Your task to perform on an android device: delete a single message in the gmail app Image 0: 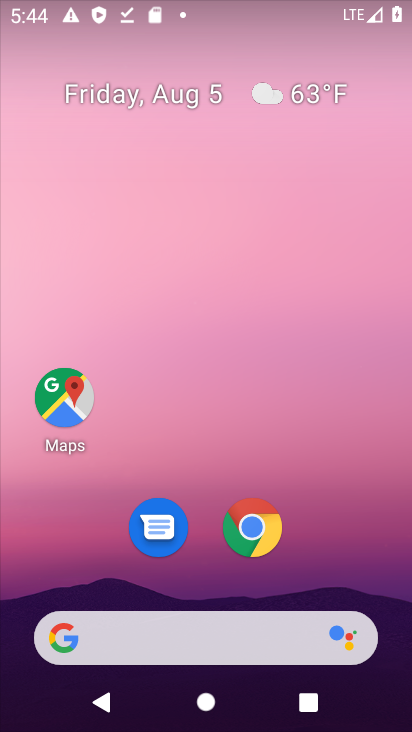
Step 0: drag from (191, 566) to (204, 50)
Your task to perform on an android device: delete a single message in the gmail app Image 1: 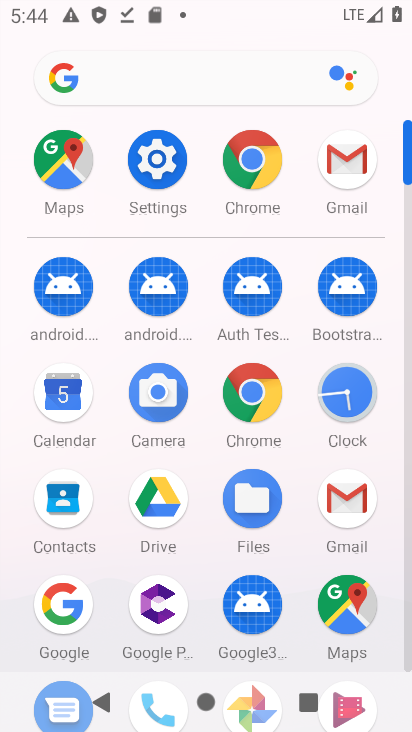
Step 1: click (335, 506)
Your task to perform on an android device: delete a single message in the gmail app Image 2: 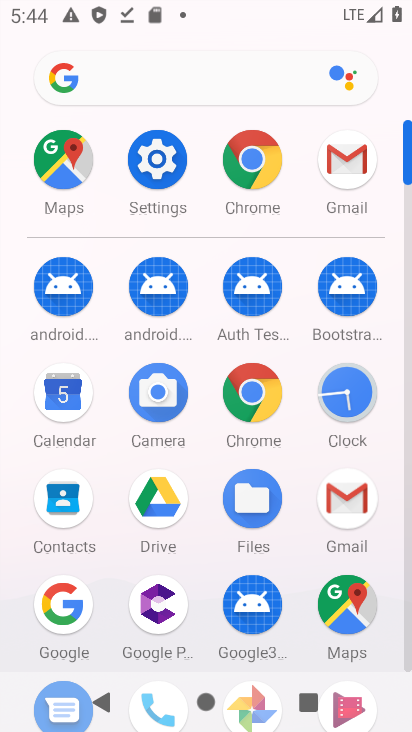
Step 2: click (335, 506)
Your task to perform on an android device: delete a single message in the gmail app Image 3: 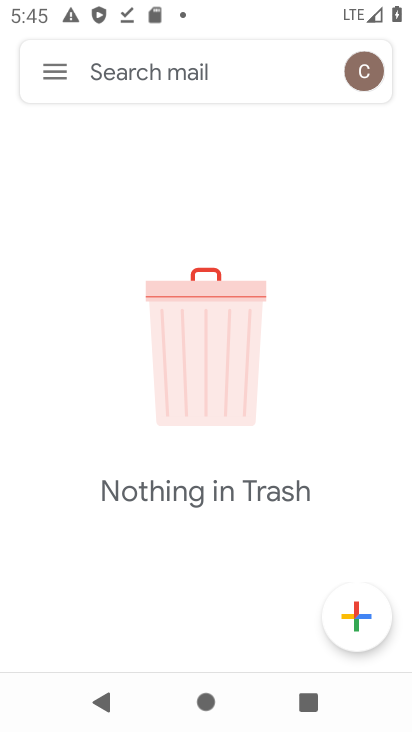
Step 3: drag from (185, 671) to (205, 212)
Your task to perform on an android device: delete a single message in the gmail app Image 4: 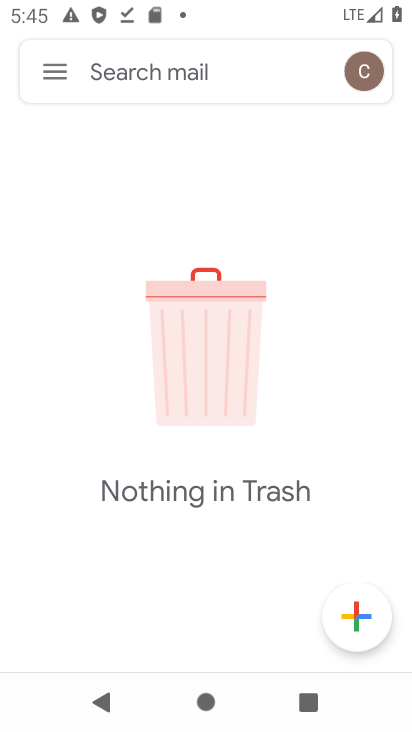
Step 4: click (44, 73)
Your task to perform on an android device: delete a single message in the gmail app Image 5: 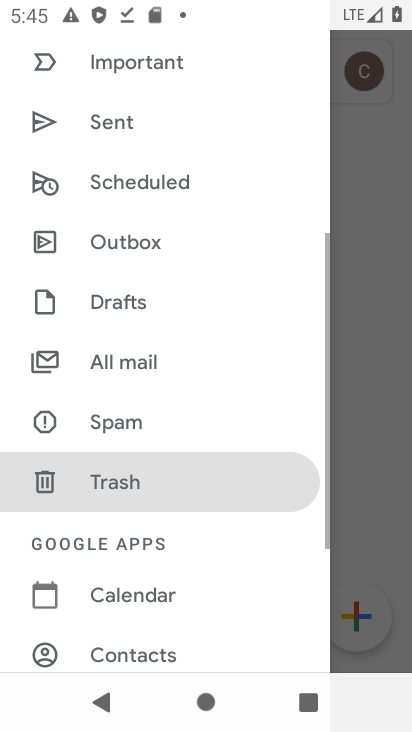
Step 5: drag from (135, 574) to (148, 235)
Your task to perform on an android device: delete a single message in the gmail app Image 6: 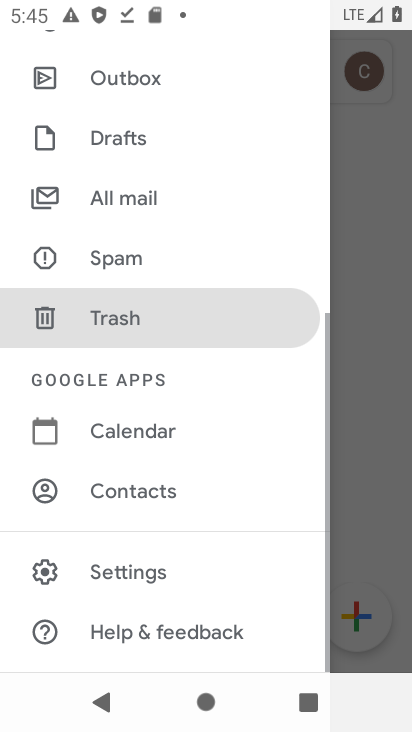
Step 6: drag from (151, 217) to (229, 659)
Your task to perform on an android device: delete a single message in the gmail app Image 7: 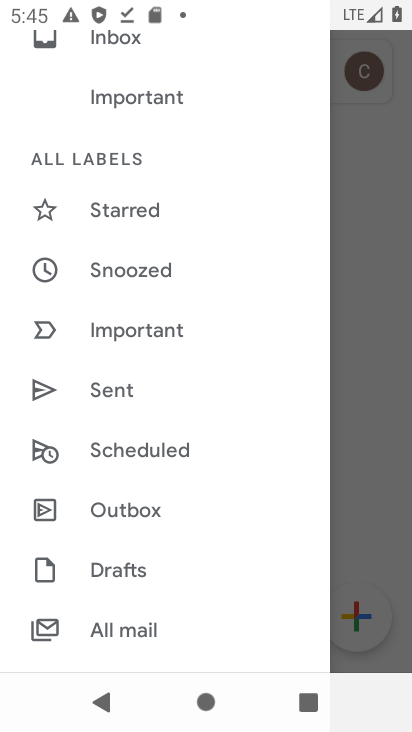
Step 7: drag from (139, 247) to (245, 637)
Your task to perform on an android device: delete a single message in the gmail app Image 8: 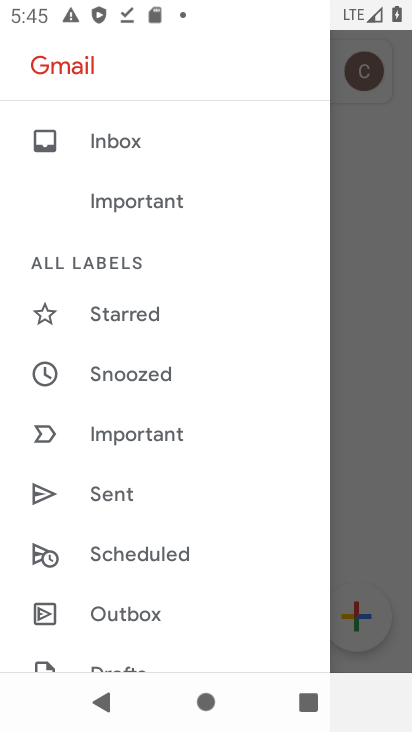
Step 8: click (160, 152)
Your task to perform on an android device: delete a single message in the gmail app Image 9: 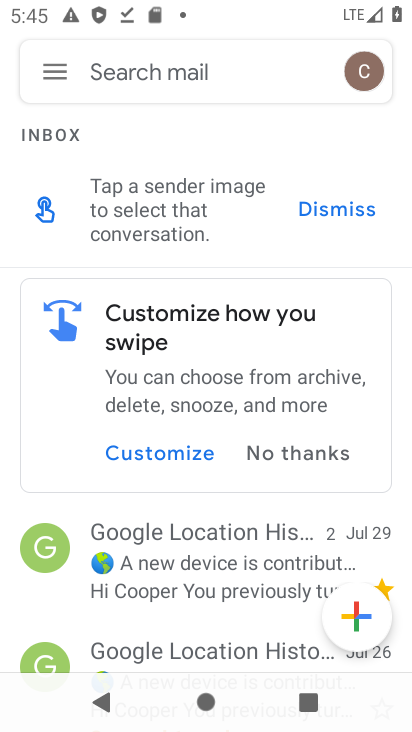
Step 9: click (188, 557)
Your task to perform on an android device: delete a single message in the gmail app Image 10: 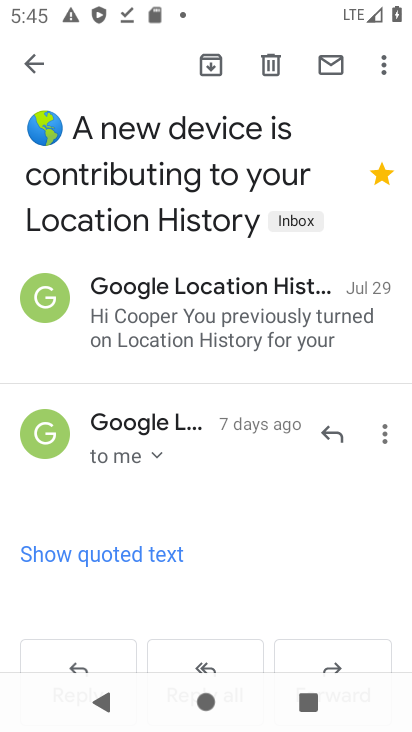
Step 10: click (268, 57)
Your task to perform on an android device: delete a single message in the gmail app Image 11: 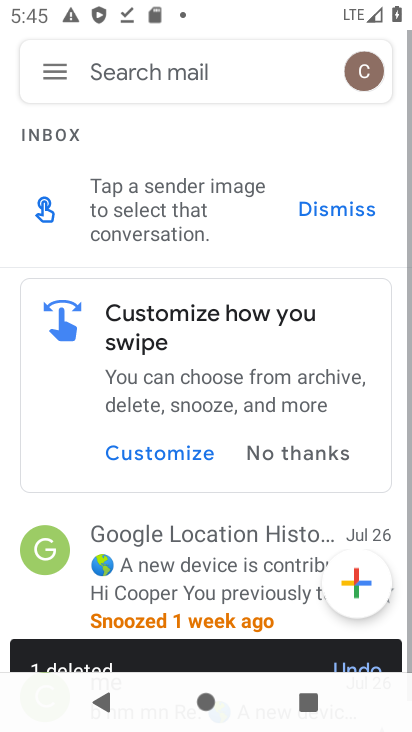
Step 11: task complete